Your task to perform on an android device: open device folders in google photos Image 0: 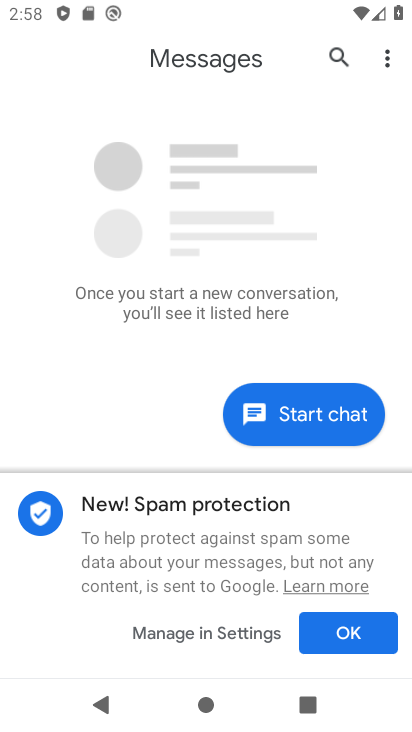
Step 0: press home button
Your task to perform on an android device: open device folders in google photos Image 1: 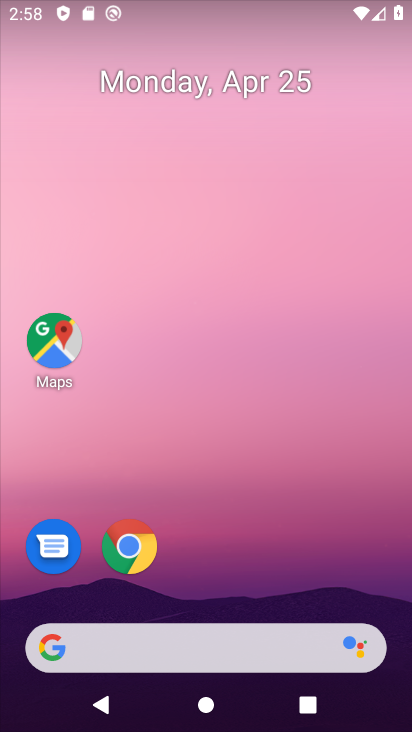
Step 1: drag from (256, 584) to (246, 53)
Your task to perform on an android device: open device folders in google photos Image 2: 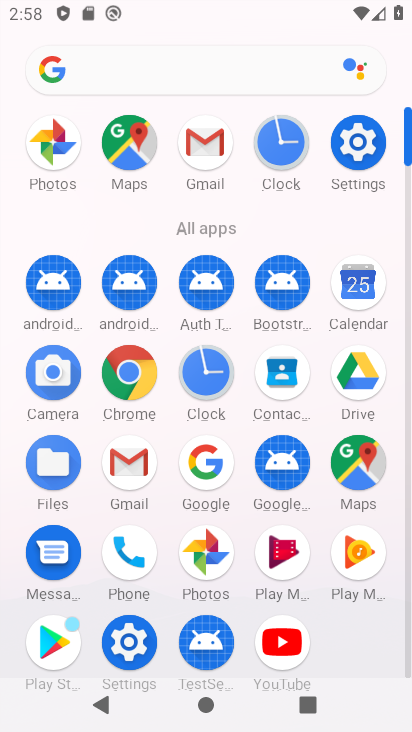
Step 2: click (44, 156)
Your task to perform on an android device: open device folders in google photos Image 3: 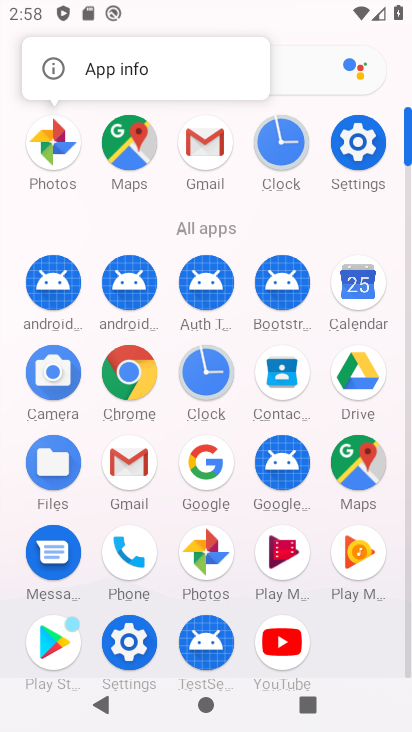
Step 3: click (46, 157)
Your task to perform on an android device: open device folders in google photos Image 4: 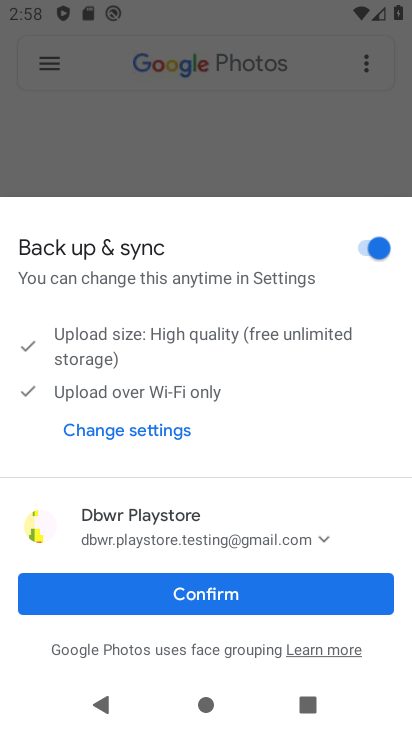
Step 4: click (183, 601)
Your task to perform on an android device: open device folders in google photos Image 5: 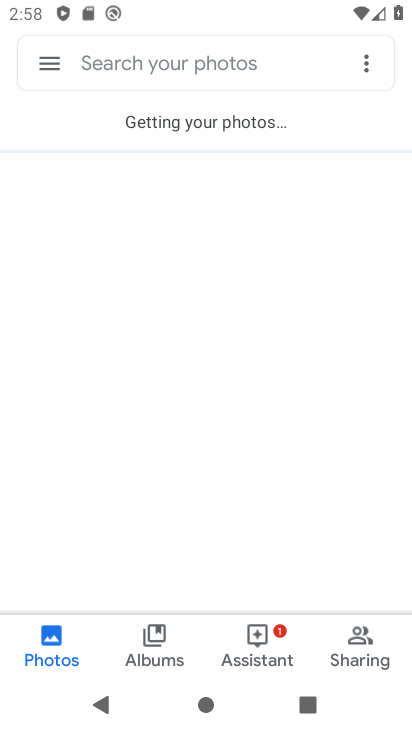
Step 5: click (48, 64)
Your task to perform on an android device: open device folders in google photos Image 6: 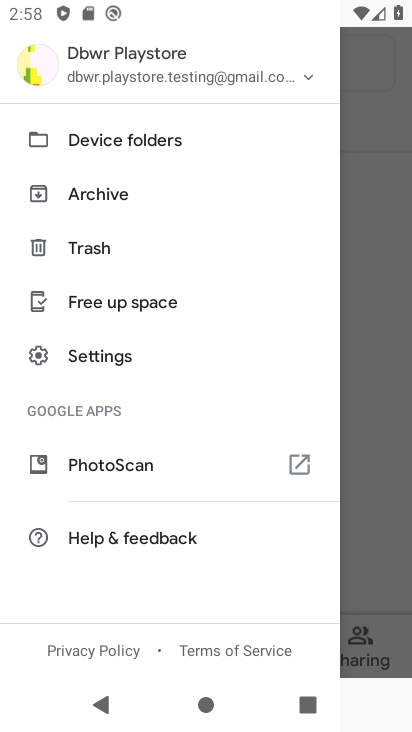
Step 6: click (118, 137)
Your task to perform on an android device: open device folders in google photos Image 7: 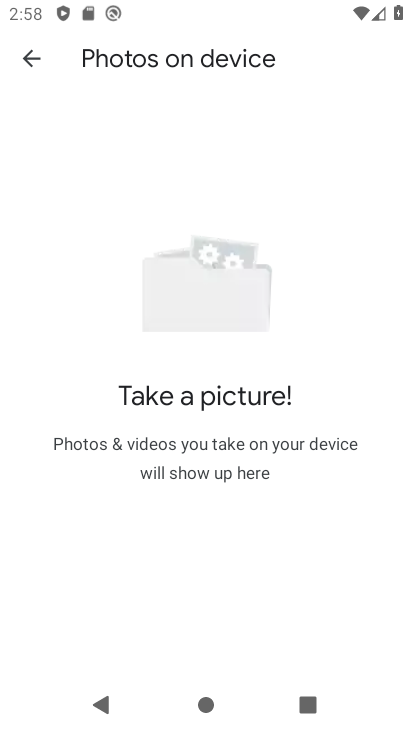
Step 7: task complete